Your task to perform on an android device: change alarm snooze length Image 0: 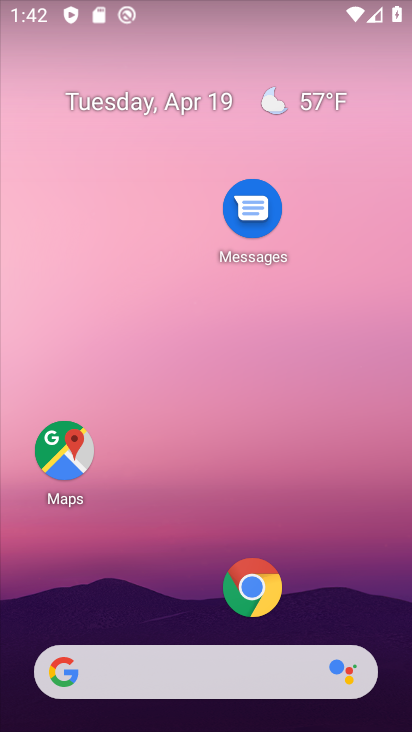
Step 0: drag from (112, 606) to (221, 78)
Your task to perform on an android device: change alarm snooze length Image 1: 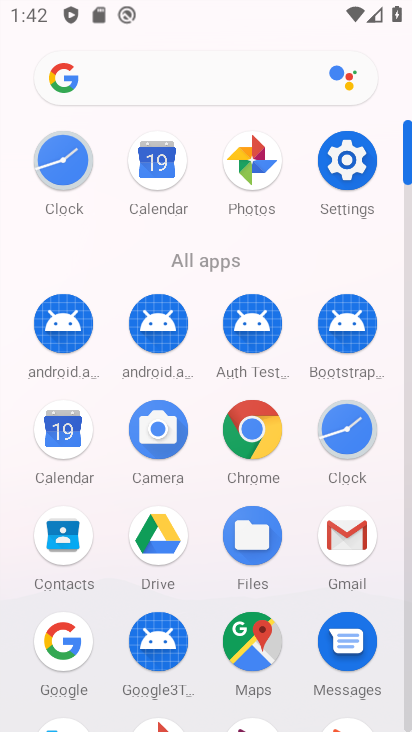
Step 1: click (344, 432)
Your task to perform on an android device: change alarm snooze length Image 2: 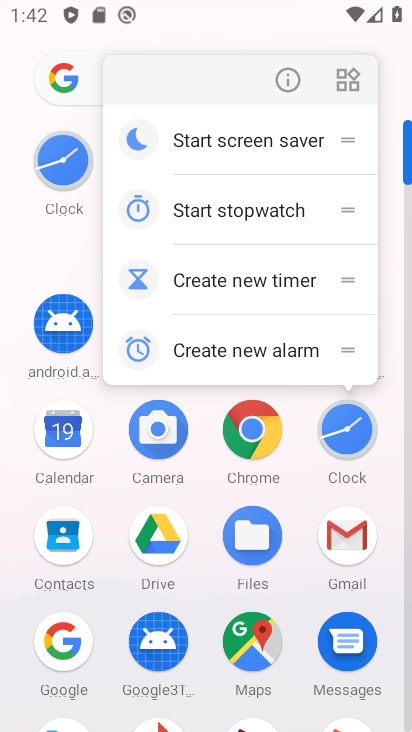
Step 2: click (346, 441)
Your task to perform on an android device: change alarm snooze length Image 3: 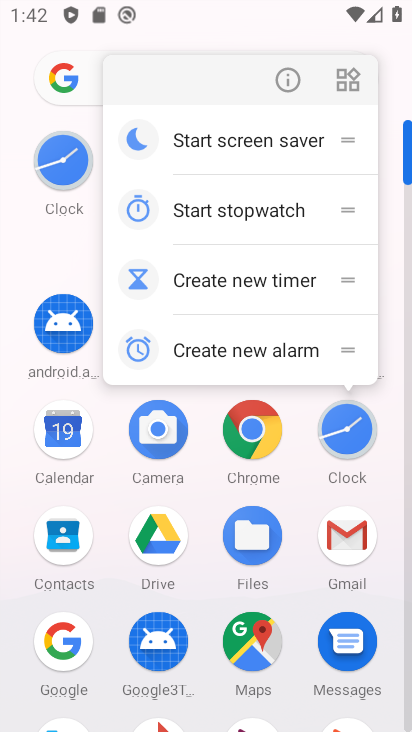
Step 3: click (356, 451)
Your task to perform on an android device: change alarm snooze length Image 4: 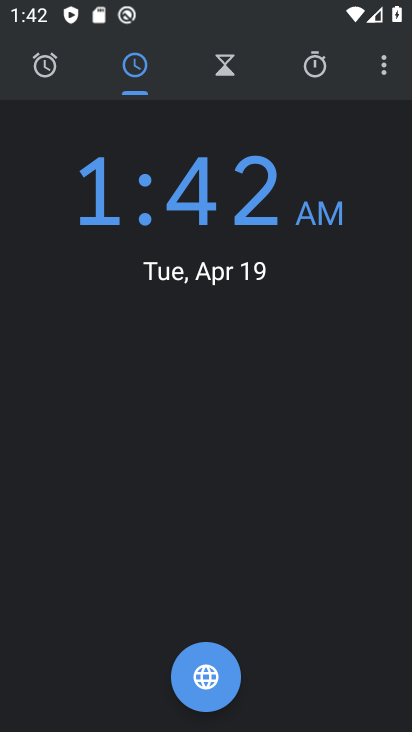
Step 4: click (394, 69)
Your task to perform on an android device: change alarm snooze length Image 5: 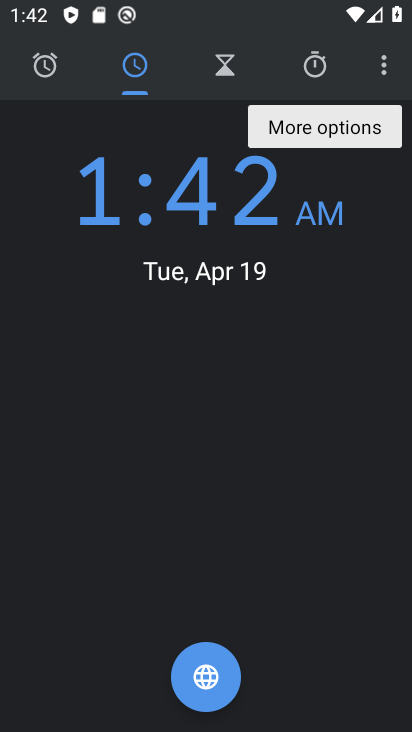
Step 5: click (368, 126)
Your task to perform on an android device: change alarm snooze length Image 6: 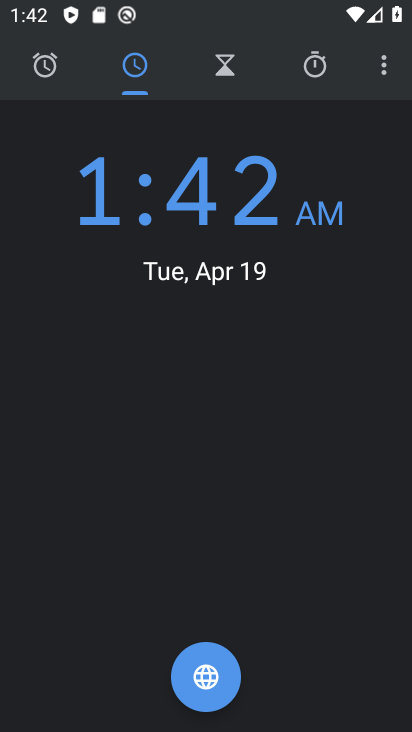
Step 6: click (386, 75)
Your task to perform on an android device: change alarm snooze length Image 7: 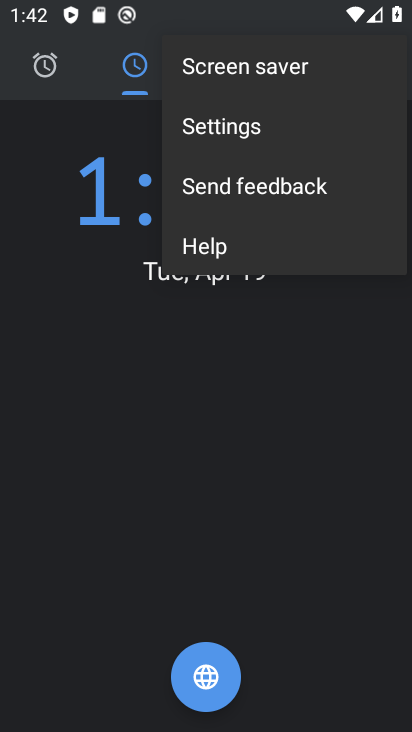
Step 7: click (287, 137)
Your task to perform on an android device: change alarm snooze length Image 8: 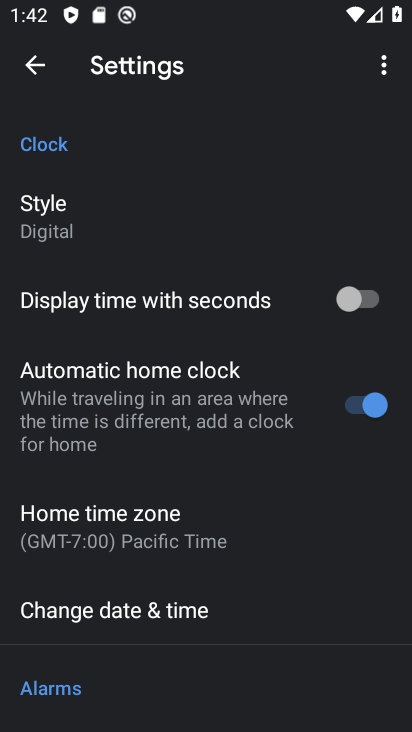
Step 8: drag from (193, 578) to (284, 186)
Your task to perform on an android device: change alarm snooze length Image 9: 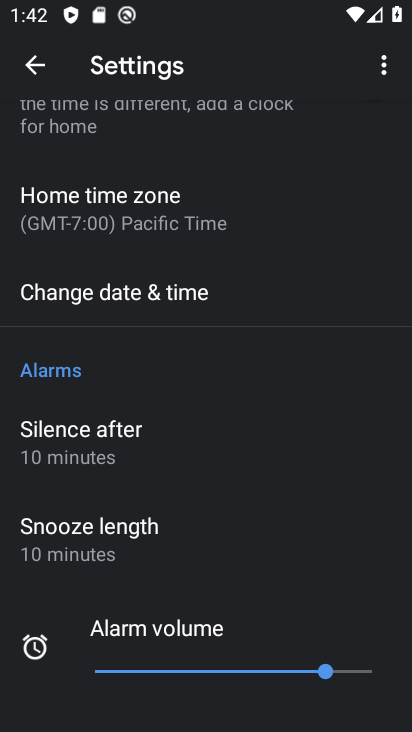
Step 9: click (168, 543)
Your task to perform on an android device: change alarm snooze length Image 10: 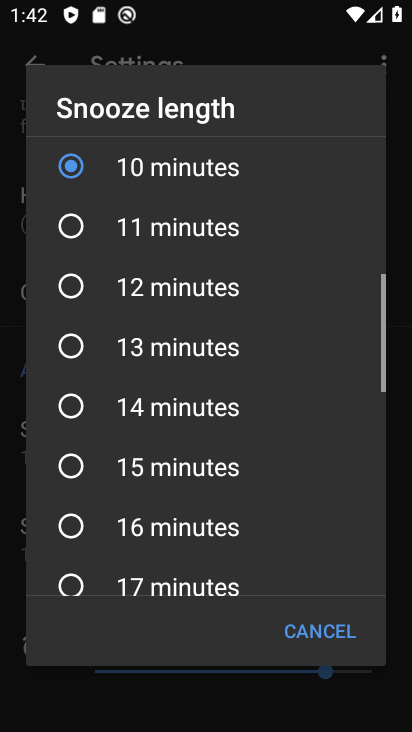
Step 10: drag from (207, 555) to (254, 306)
Your task to perform on an android device: change alarm snooze length Image 11: 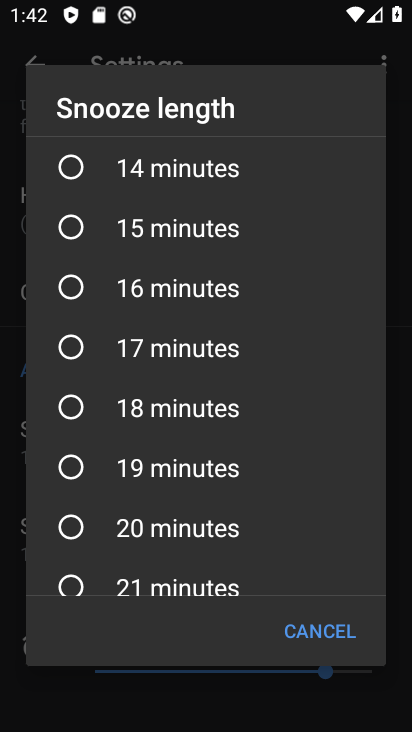
Step 11: click (174, 533)
Your task to perform on an android device: change alarm snooze length Image 12: 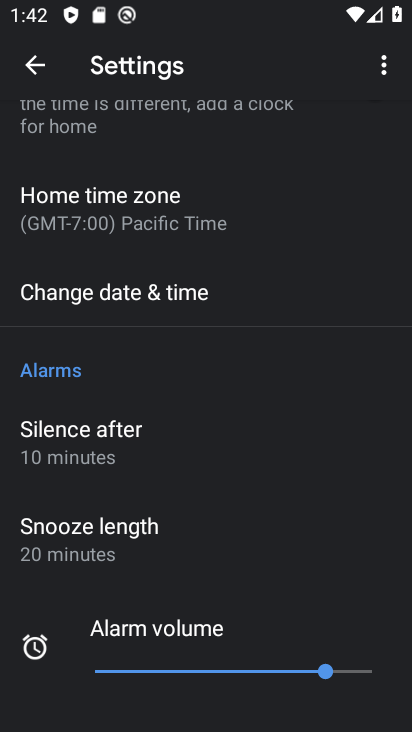
Step 12: task complete